Your task to perform on an android device: turn on data saver in the chrome app Image 0: 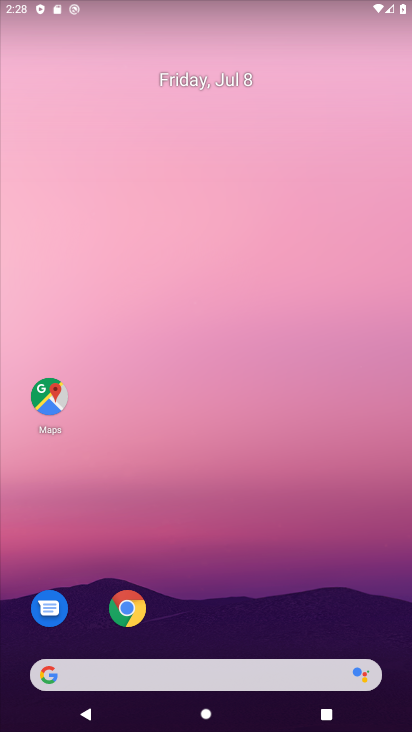
Step 0: click (124, 602)
Your task to perform on an android device: turn on data saver in the chrome app Image 1: 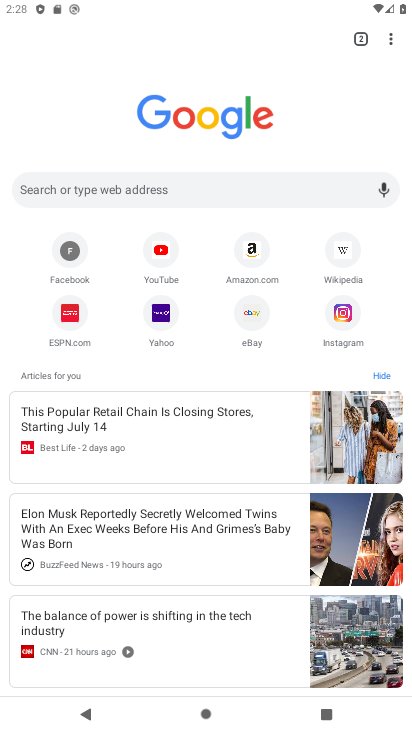
Step 1: click (389, 40)
Your task to perform on an android device: turn on data saver in the chrome app Image 2: 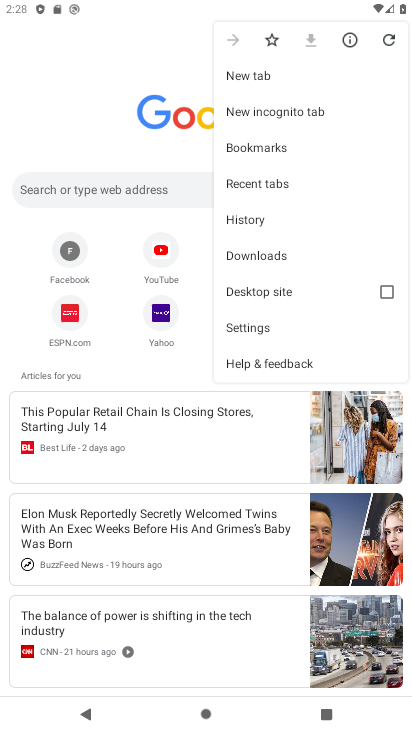
Step 2: click (242, 329)
Your task to perform on an android device: turn on data saver in the chrome app Image 3: 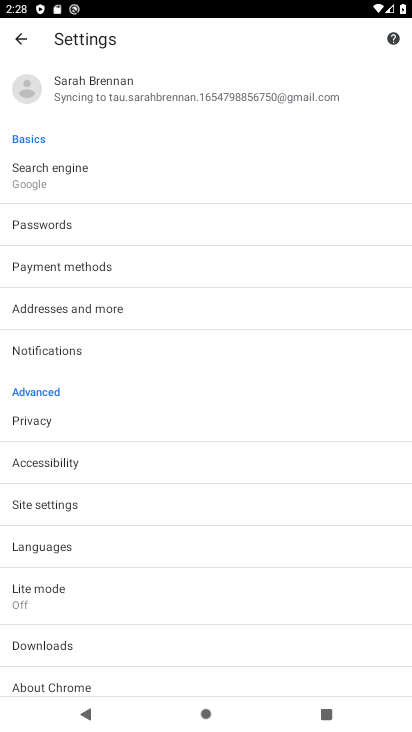
Step 3: click (64, 590)
Your task to perform on an android device: turn on data saver in the chrome app Image 4: 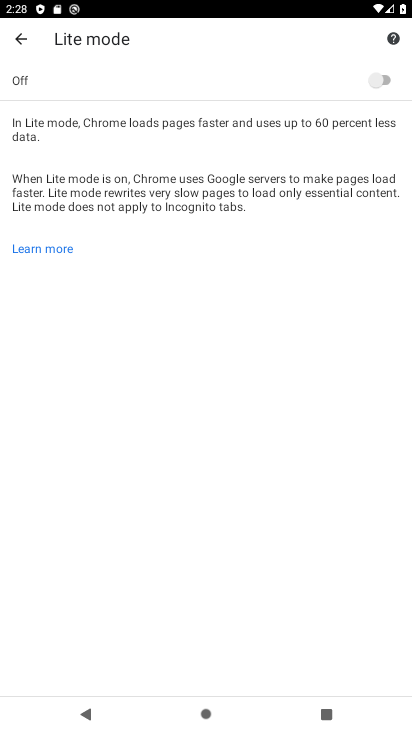
Step 4: click (381, 85)
Your task to perform on an android device: turn on data saver in the chrome app Image 5: 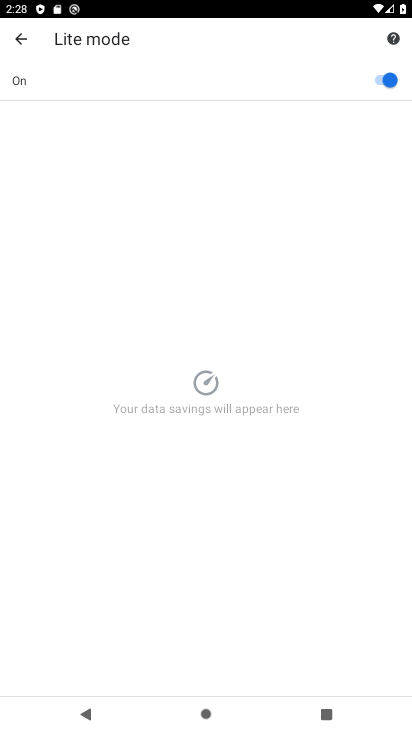
Step 5: task complete